Your task to perform on an android device: install app "Google Translate" Image 0: 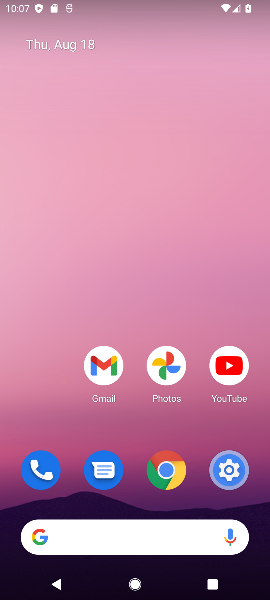
Step 0: drag from (137, 524) to (135, 21)
Your task to perform on an android device: install app "Google Translate" Image 1: 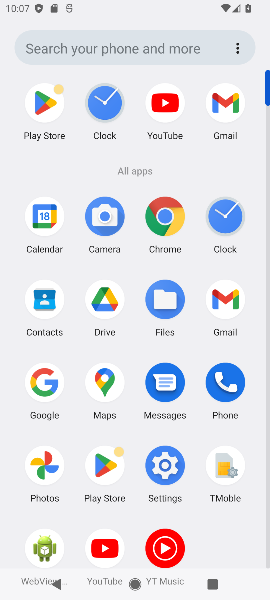
Step 1: click (115, 462)
Your task to perform on an android device: install app "Google Translate" Image 2: 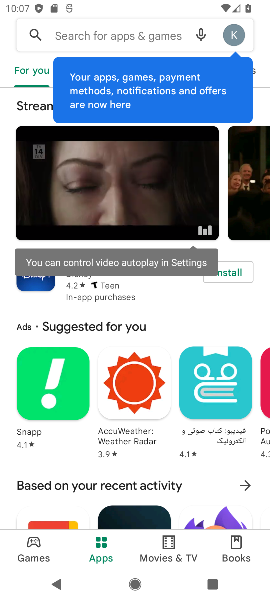
Step 2: click (116, 27)
Your task to perform on an android device: install app "Google Translate" Image 3: 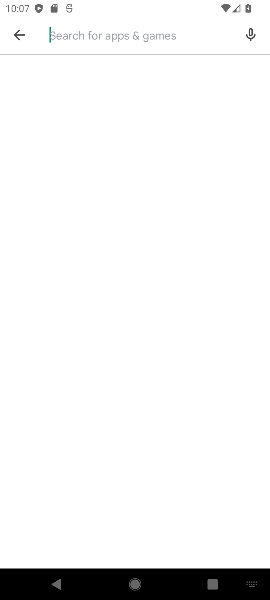
Step 3: type "google translate"
Your task to perform on an android device: install app "Google Translate" Image 4: 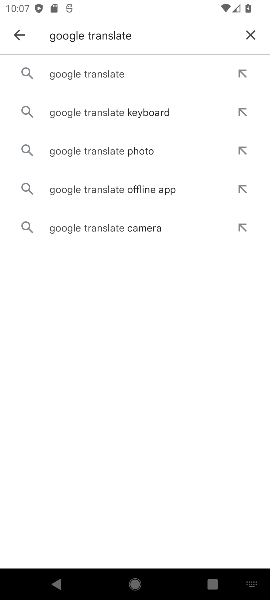
Step 4: click (120, 76)
Your task to perform on an android device: install app "Google Translate" Image 5: 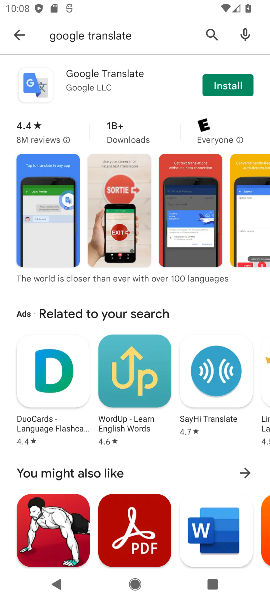
Step 5: click (229, 82)
Your task to perform on an android device: install app "Google Translate" Image 6: 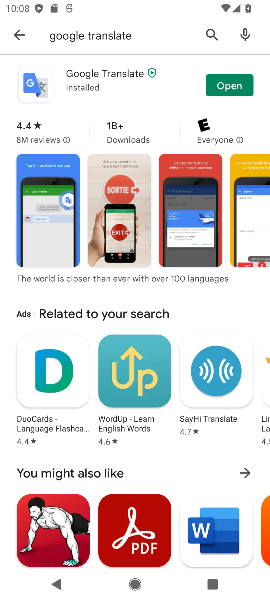
Step 6: task complete